Your task to perform on an android device: turn on showing notifications on the lock screen Image 0: 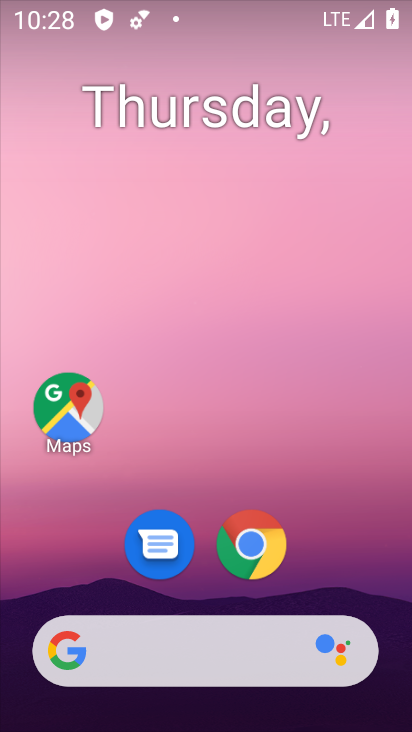
Step 0: drag from (317, 530) to (83, 112)
Your task to perform on an android device: turn on showing notifications on the lock screen Image 1: 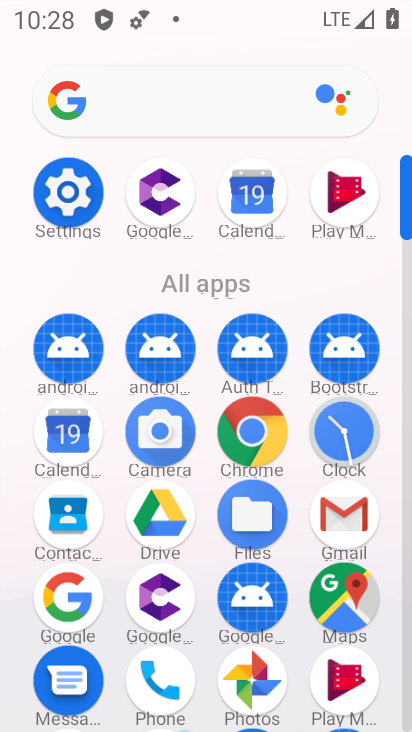
Step 1: click (80, 188)
Your task to perform on an android device: turn on showing notifications on the lock screen Image 2: 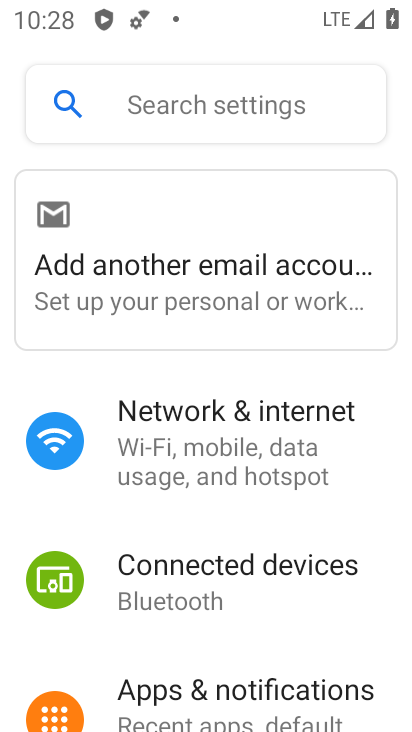
Step 2: click (144, 711)
Your task to perform on an android device: turn on showing notifications on the lock screen Image 3: 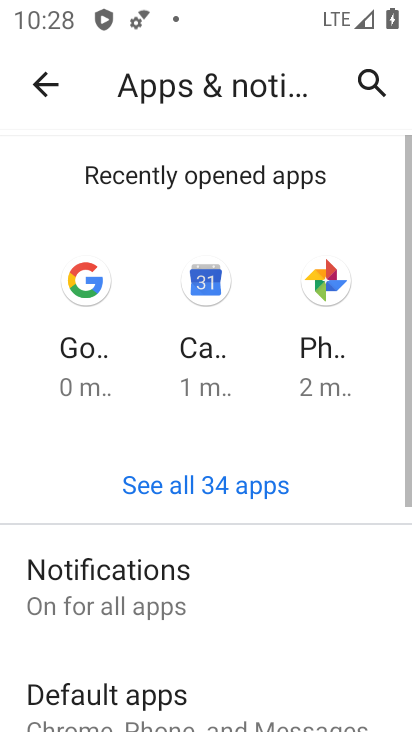
Step 3: drag from (144, 711) to (144, 472)
Your task to perform on an android device: turn on showing notifications on the lock screen Image 4: 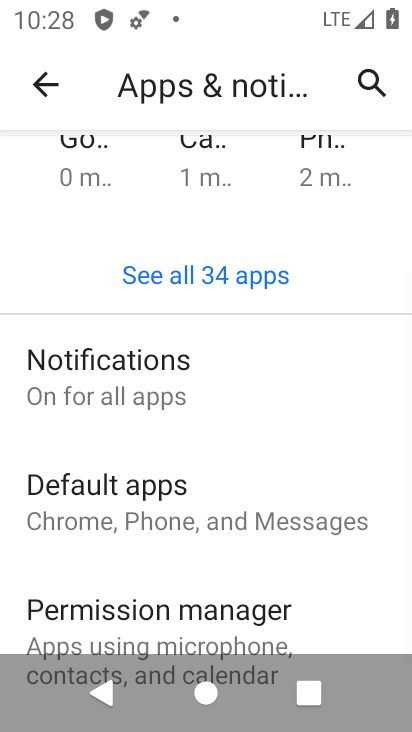
Step 4: click (139, 383)
Your task to perform on an android device: turn on showing notifications on the lock screen Image 5: 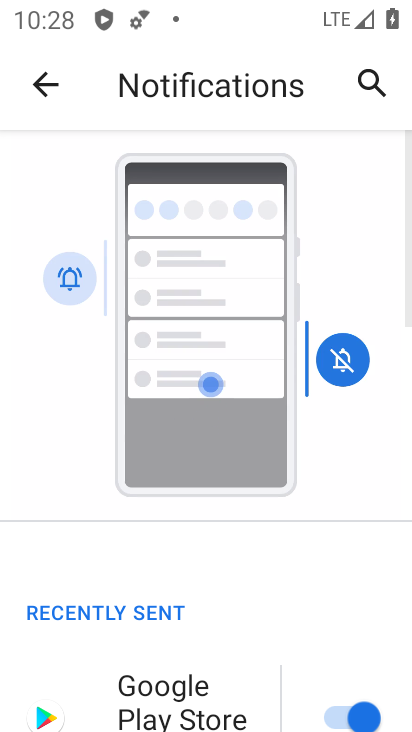
Step 5: drag from (122, 642) to (132, 281)
Your task to perform on an android device: turn on showing notifications on the lock screen Image 6: 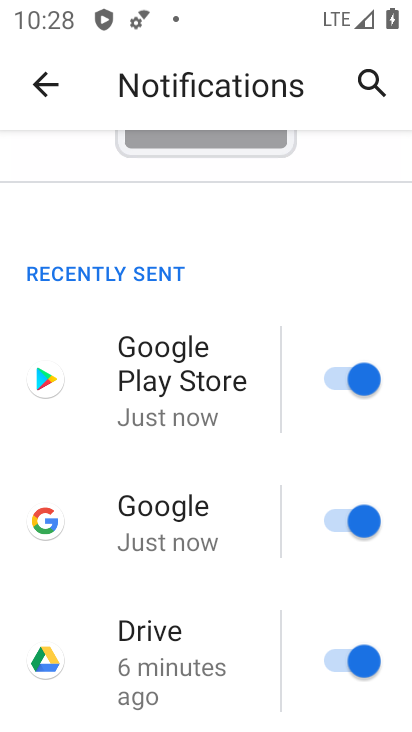
Step 6: drag from (77, 660) to (77, 357)
Your task to perform on an android device: turn on showing notifications on the lock screen Image 7: 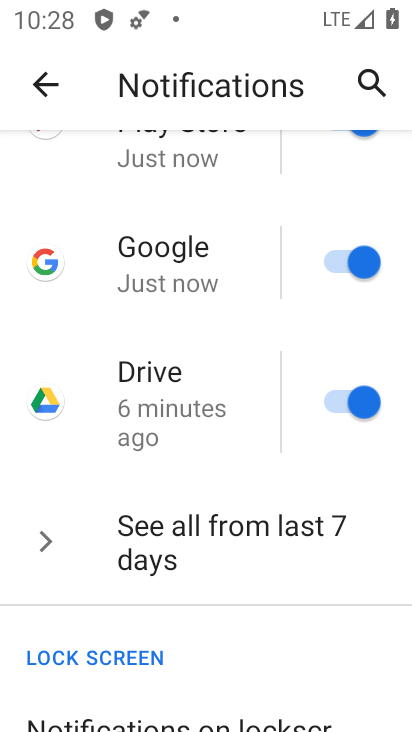
Step 7: drag from (92, 710) to (100, 509)
Your task to perform on an android device: turn on showing notifications on the lock screen Image 8: 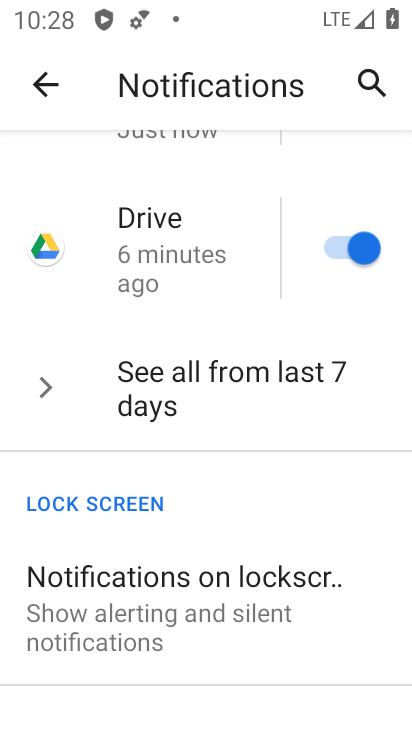
Step 8: click (121, 604)
Your task to perform on an android device: turn on showing notifications on the lock screen Image 9: 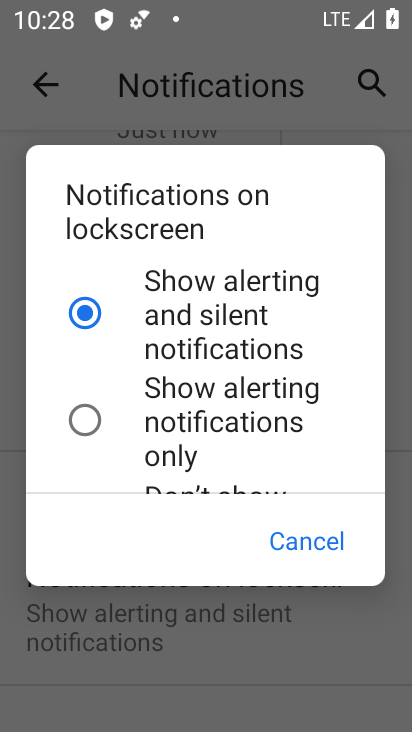
Step 9: task complete